Your task to perform on an android device: show emergency info Image 0: 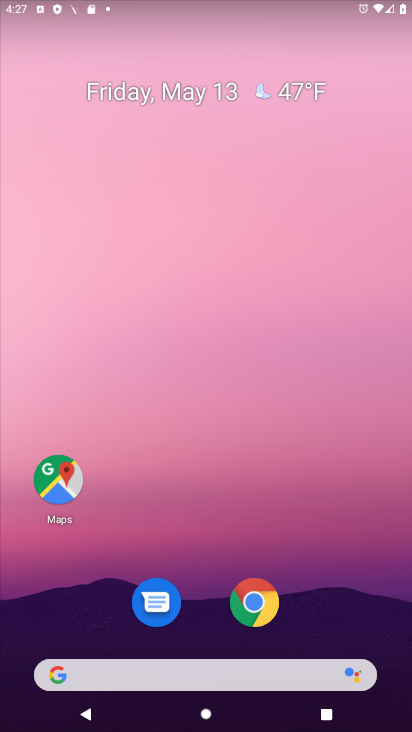
Step 0: drag from (193, 647) to (233, 268)
Your task to perform on an android device: show emergency info Image 1: 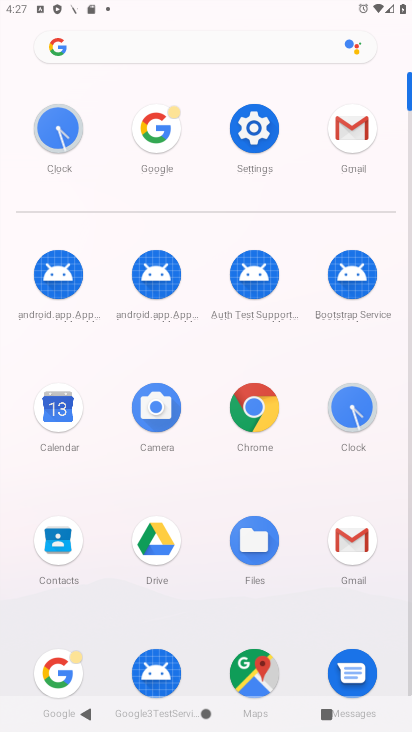
Step 1: click (257, 126)
Your task to perform on an android device: show emergency info Image 2: 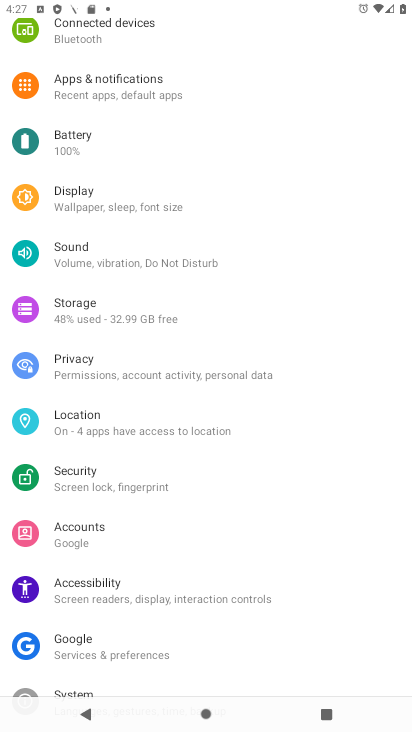
Step 2: drag from (176, 670) to (241, 382)
Your task to perform on an android device: show emergency info Image 3: 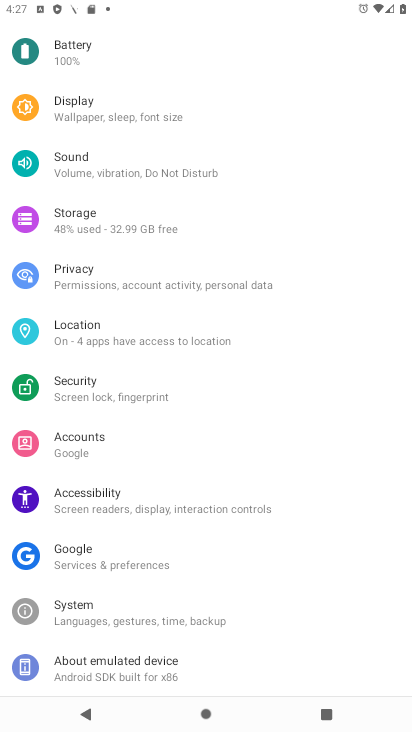
Step 3: click (96, 677)
Your task to perform on an android device: show emergency info Image 4: 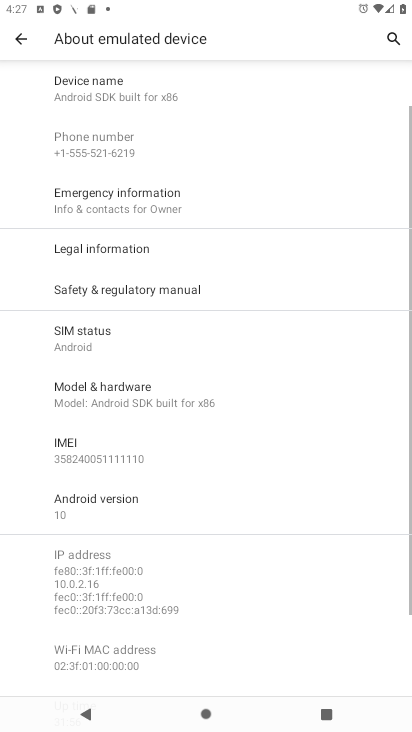
Step 4: click (126, 203)
Your task to perform on an android device: show emergency info Image 5: 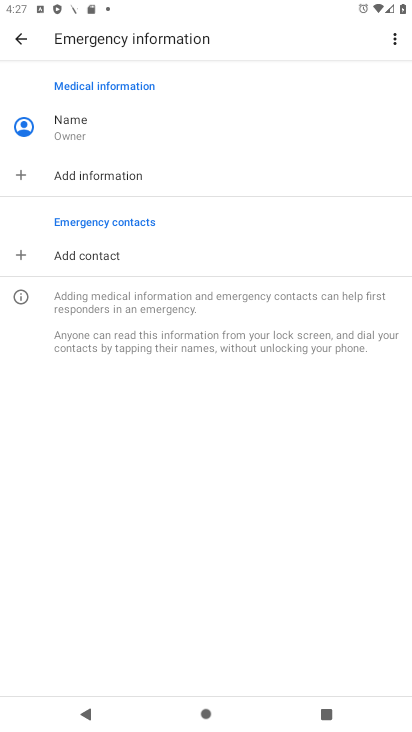
Step 5: task complete